Your task to perform on an android device: turn on bluetooth scan Image 0: 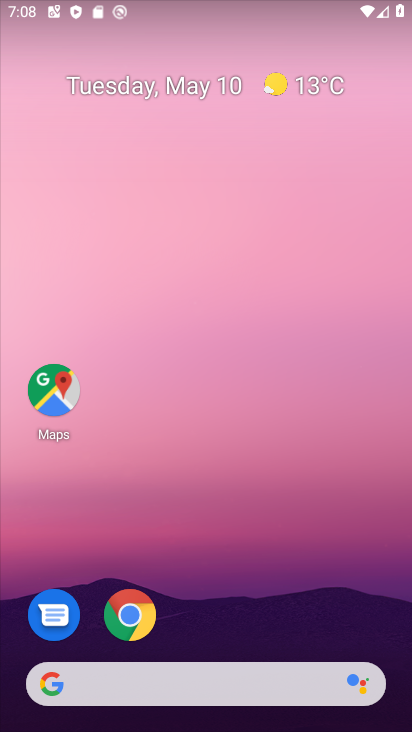
Step 0: drag from (290, 578) to (313, 23)
Your task to perform on an android device: turn on bluetooth scan Image 1: 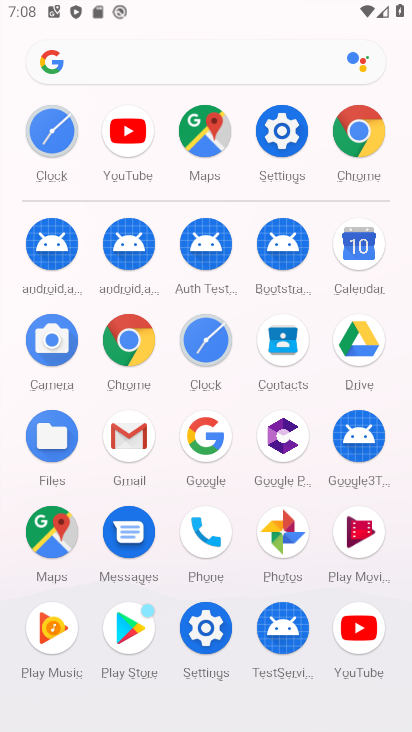
Step 1: click (285, 158)
Your task to perform on an android device: turn on bluetooth scan Image 2: 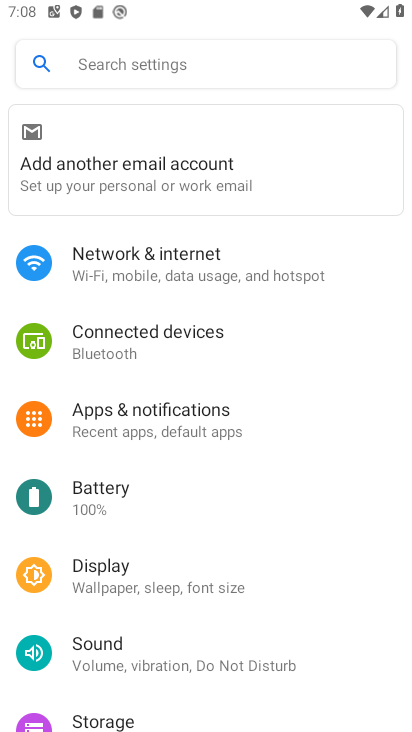
Step 2: drag from (137, 582) to (181, 203)
Your task to perform on an android device: turn on bluetooth scan Image 3: 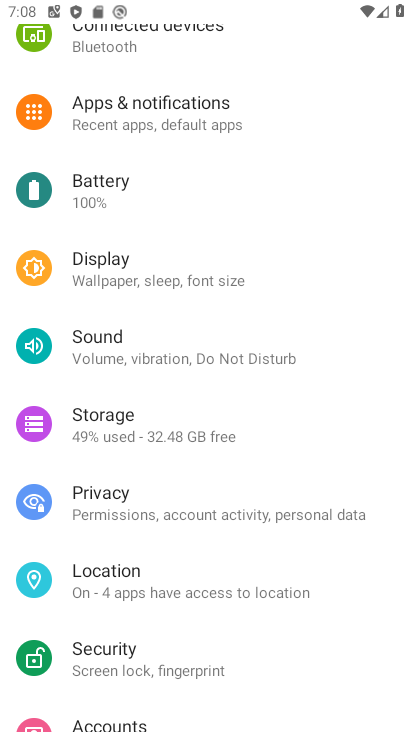
Step 3: click (90, 578)
Your task to perform on an android device: turn on bluetooth scan Image 4: 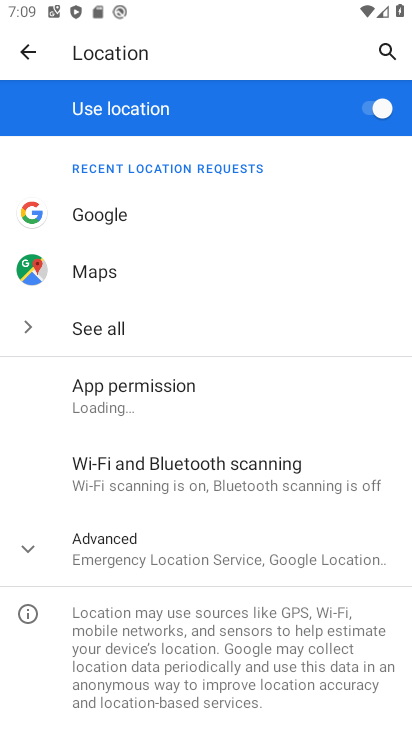
Step 4: drag from (149, 670) to (199, 311)
Your task to perform on an android device: turn on bluetooth scan Image 5: 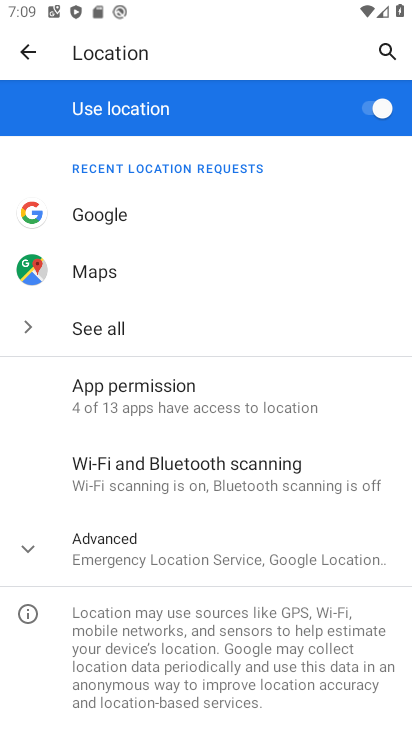
Step 5: click (189, 559)
Your task to perform on an android device: turn on bluetooth scan Image 6: 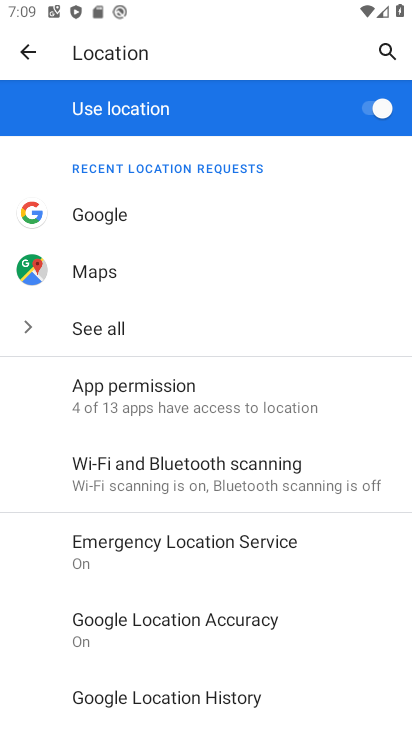
Step 6: drag from (214, 629) to (205, 290)
Your task to perform on an android device: turn on bluetooth scan Image 7: 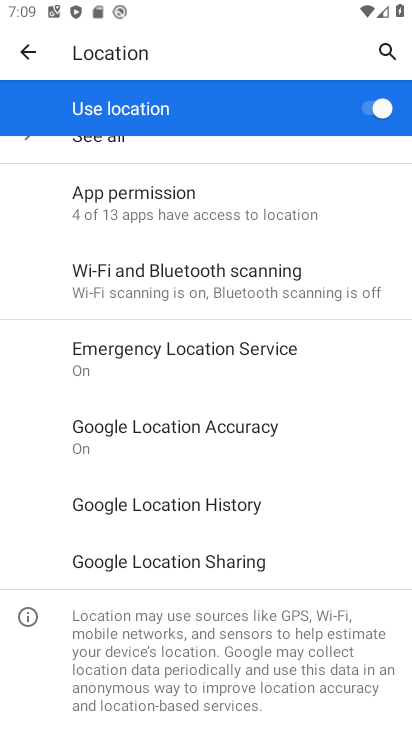
Step 7: click (167, 274)
Your task to perform on an android device: turn on bluetooth scan Image 8: 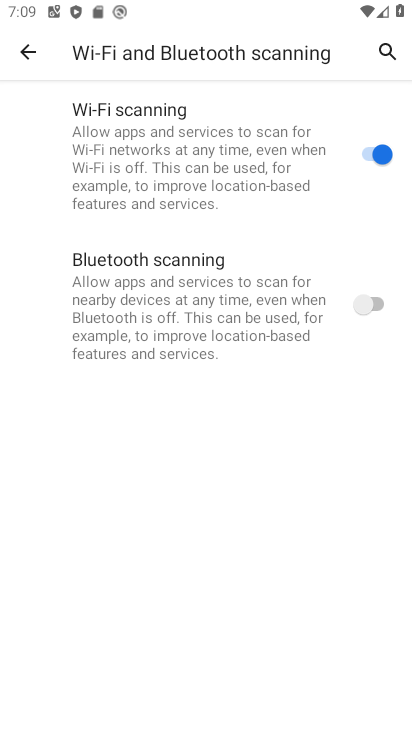
Step 8: click (349, 293)
Your task to perform on an android device: turn on bluetooth scan Image 9: 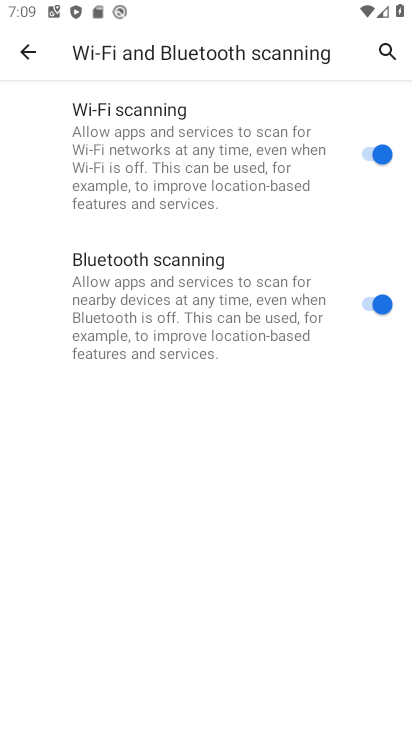
Step 9: task complete